Your task to perform on an android device: remove spam from my inbox in the gmail app Image 0: 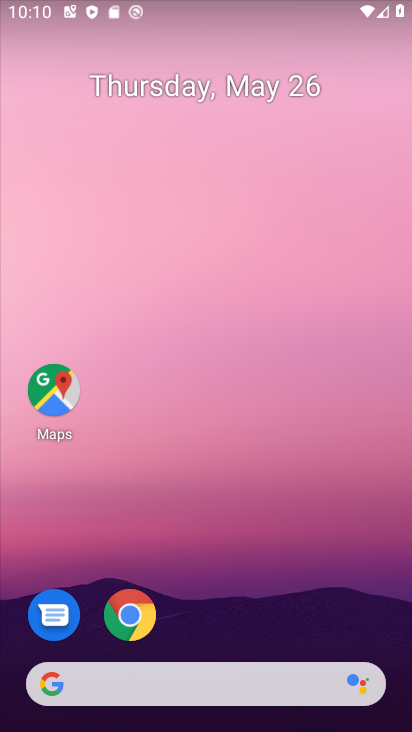
Step 0: drag from (175, 686) to (346, 15)
Your task to perform on an android device: remove spam from my inbox in the gmail app Image 1: 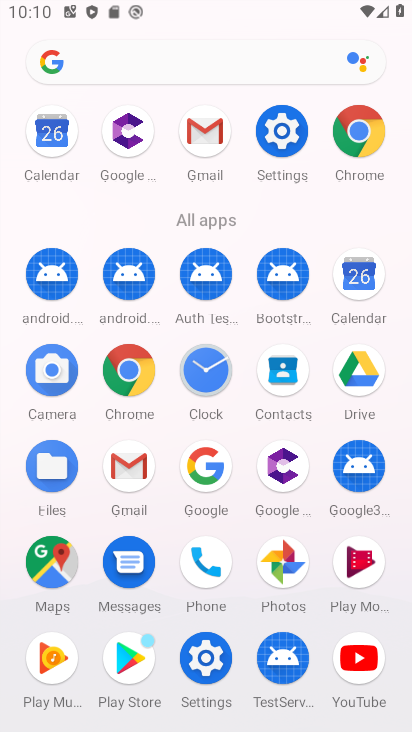
Step 1: click (150, 464)
Your task to perform on an android device: remove spam from my inbox in the gmail app Image 2: 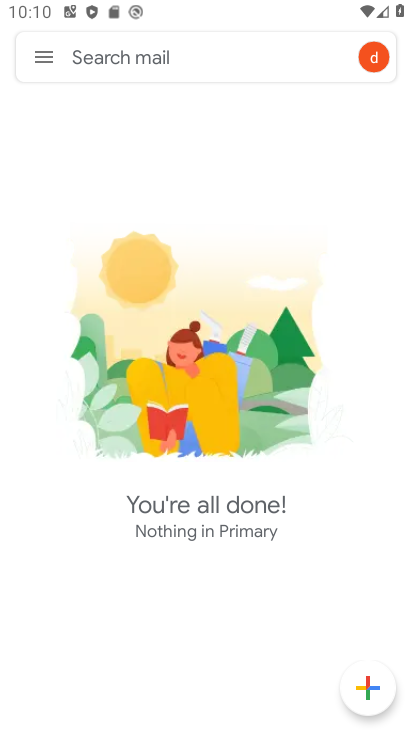
Step 2: click (28, 50)
Your task to perform on an android device: remove spam from my inbox in the gmail app Image 3: 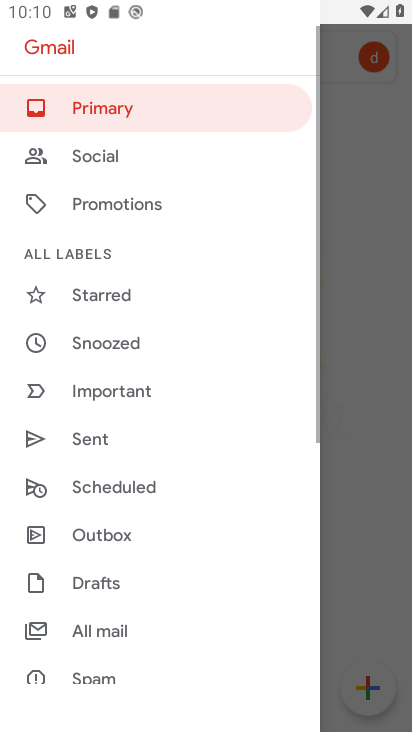
Step 3: drag from (111, 643) to (137, 217)
Your task to perform on an android device: remove spam from my inbox in the gmail app Image 4: 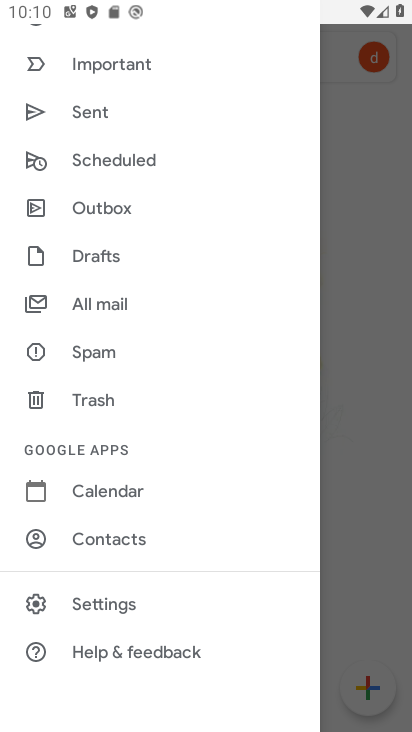
Step 4: click (114, 355)
Your task to perform on an android device: remove spam from my inbox in the gmail app Image 5: 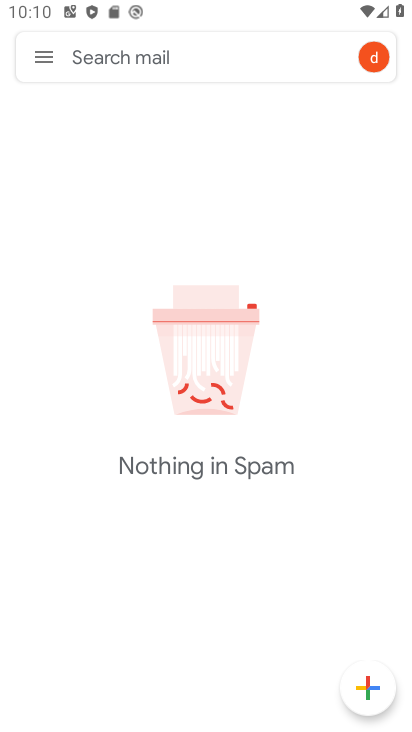
Step 5: task complete